Your task to perform on an android device: Go to Android settings Image 0: 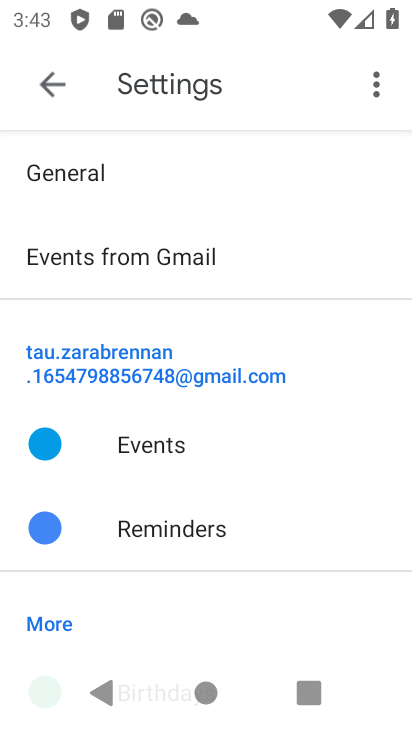
Step 0: press home button
Your task to perform on an android device: Go to Android settings Image 1: 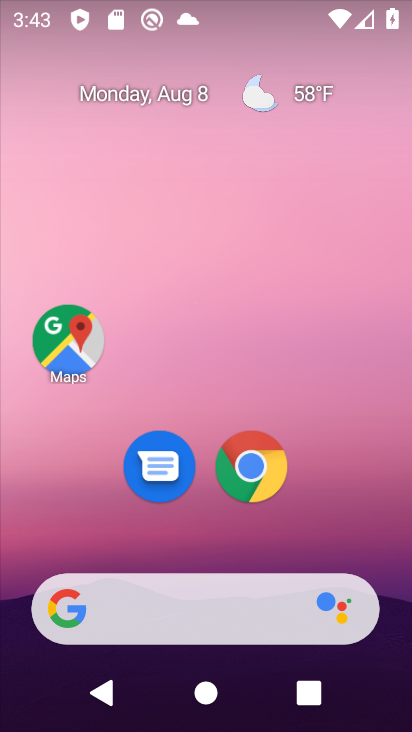
Step 1: drag from (222, 507) to (222, 180)
Your task to perform on an android device: Go to Android settings Image 2: 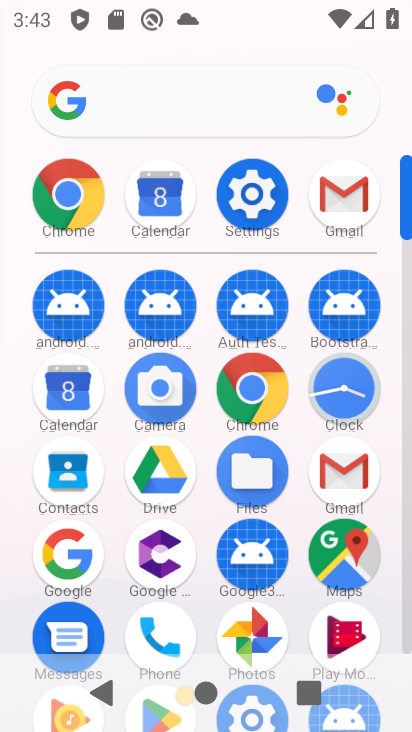
Step 2: click (264, 175)
Your task to perform on an android device: Go to Android settings Image 3: 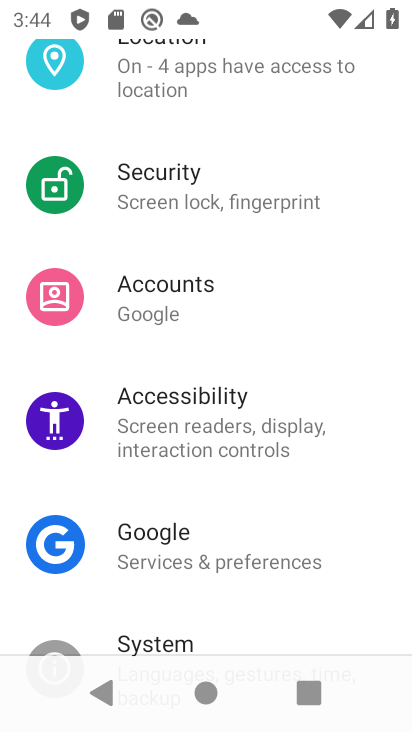
Step 3: task complete